Your task to perform on an android device: toggle notifications settings in the gmail app Image 0: 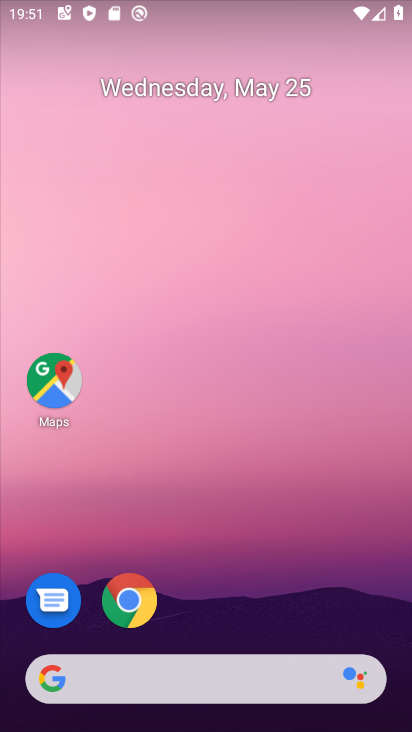
Step 0: drag from (366, 600) to (322, 151)
Your task to perform on an android device: toggle notifications settings in the gmail app Image 1: 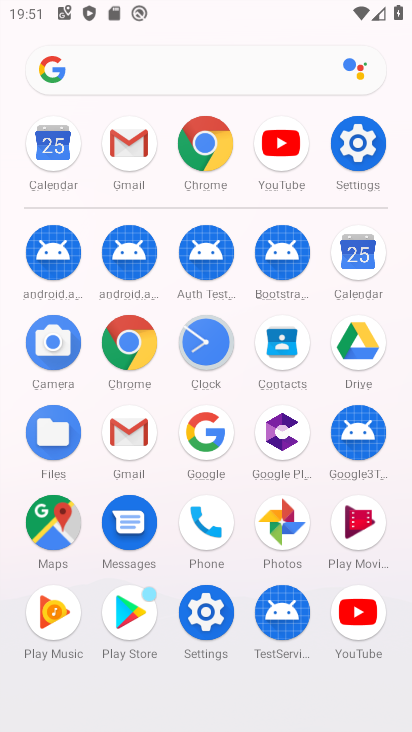
Step 1: click (138, 436)
Your task to perform on an android device: toggle notifications settings in the gmail app Image 2: 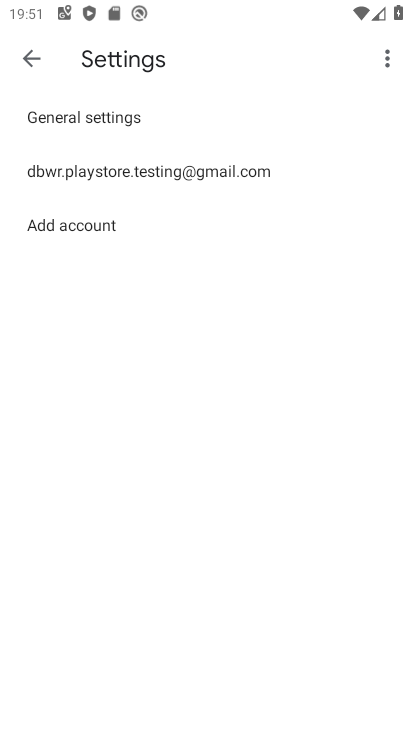
Step 2: click (184, 170)
Your task to perform on an android device: toggle notifications settings in the gmail app Image 3: 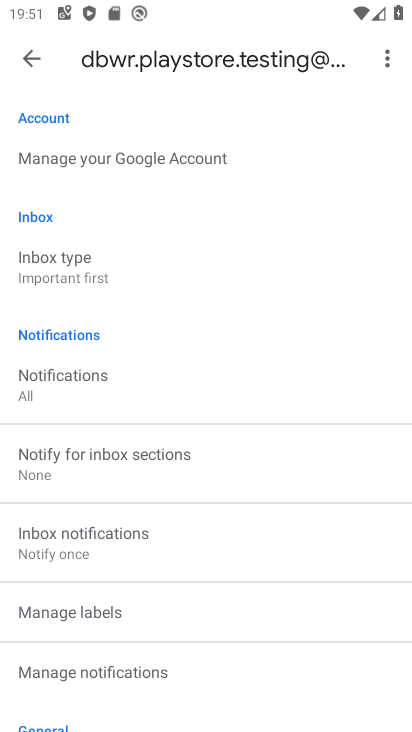
Step 3: click (62, 375)
Your task to perform on an android device: toggle notifications settings in the gmail app Image 4: 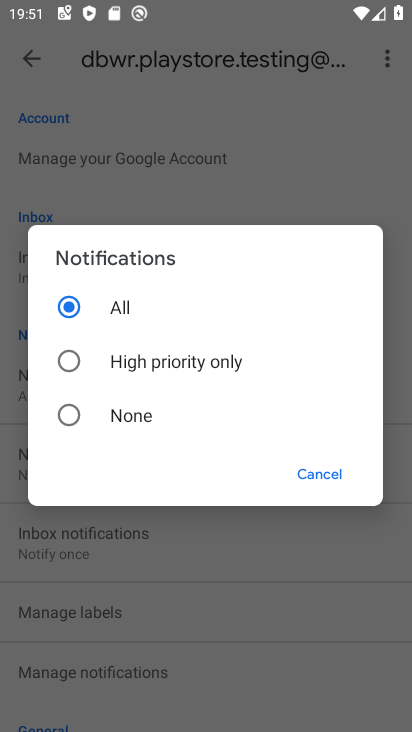
Step 4: click (64, 419)
Your task to perform on an android device: toggle notifications settings in the gmail app Image 5: 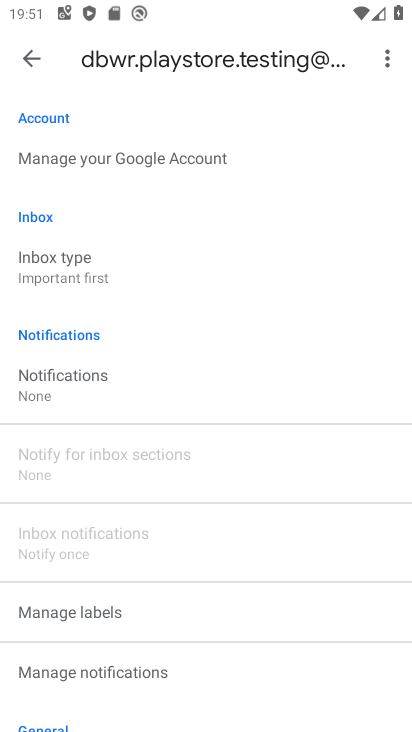
Step 5: task complete